Your task to perform on an android device: Open network settings Image 0: 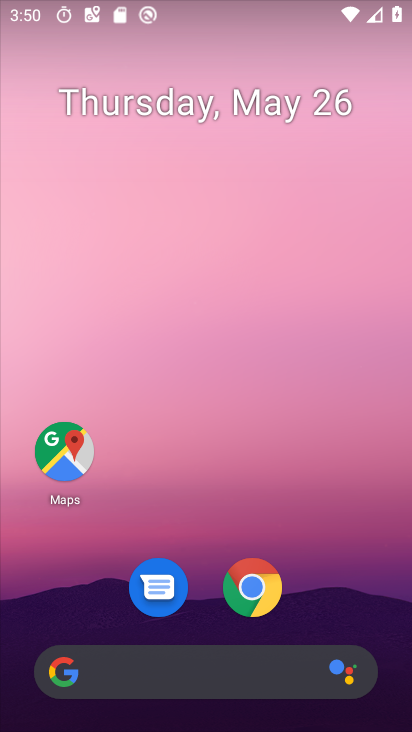
Step 0: drag from (248, 707) to (131, 144)
Your task to perform on an android device: Open network settings Image 1: 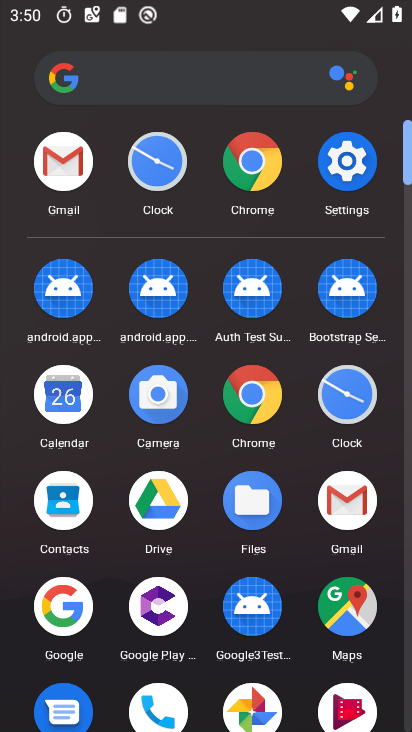
Step 1: click (361, 157)
Your task to perform on an android device: Open network settings Image 2: 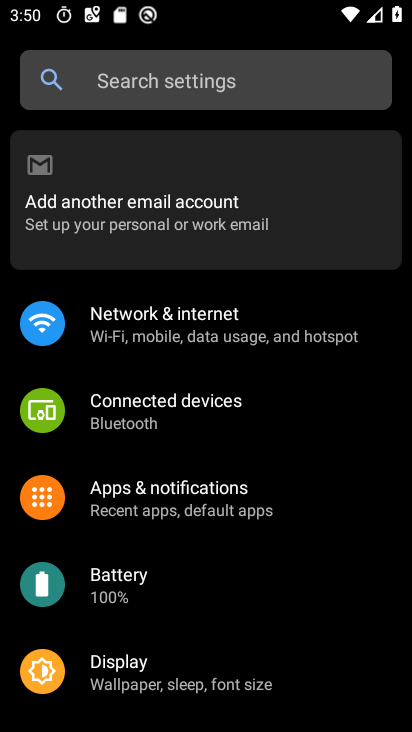
Step 2: click (179, 316)
Your task to perform on an android device: Open network settings Image 3: 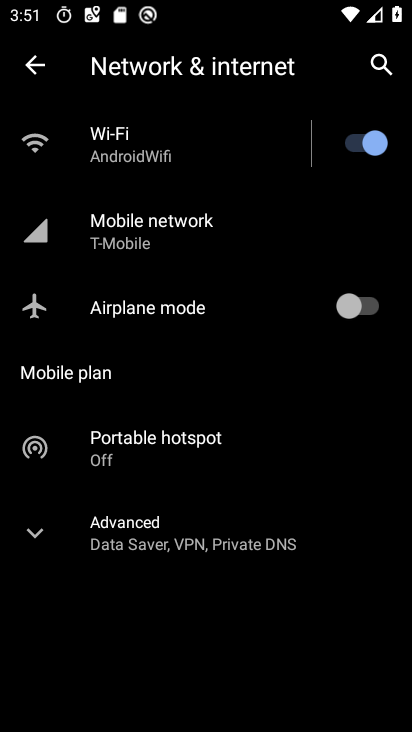
Step 3: task complete